Your task to perform on an android device: see tabs open on other devices in the chrome app Image 0: 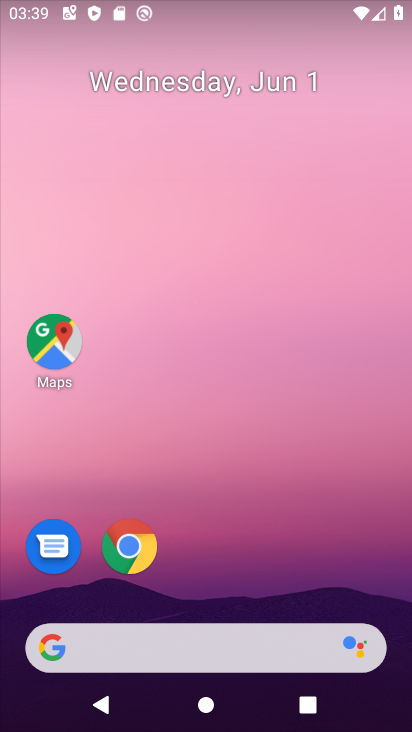
Step 0: click (140, 544)
Your task to perform on an android device: see tabs open on other devices in the chrome app Image 1: 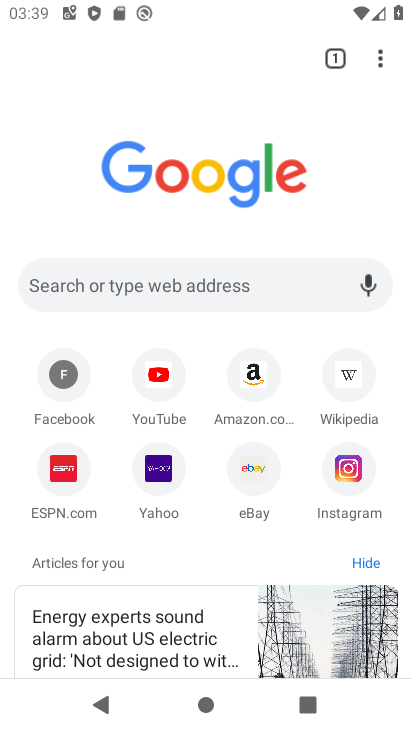
Step 1: click (385, 61)
Your task to perform on an android device: see tabs open on other devices in the chrome app Image 2: 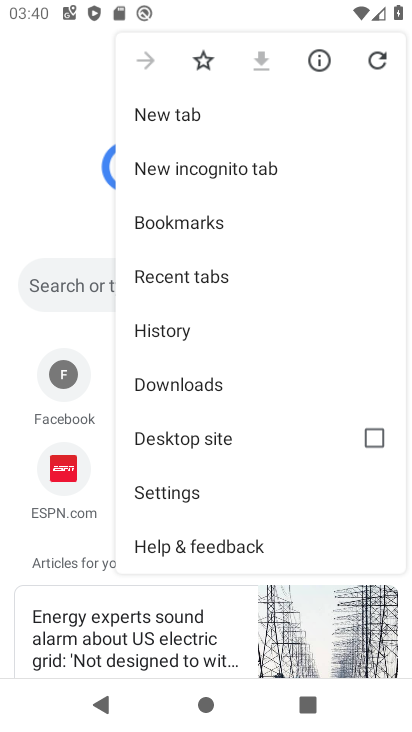
Step 2: click (228, 279)
Your task to perform on an android device: see tabs open on other devices in the chrome app Image 3: 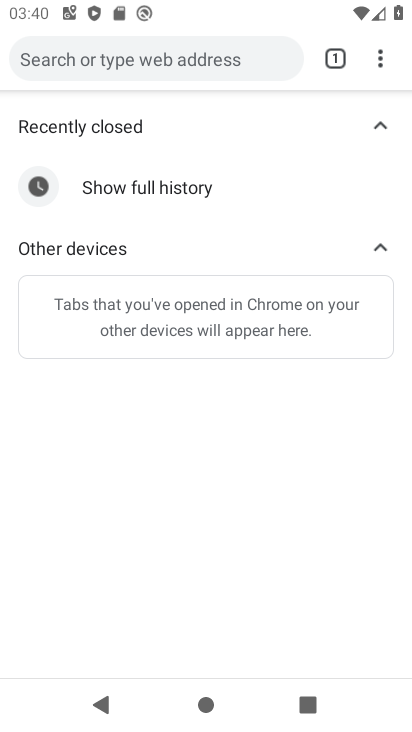
Step 3: task complete